Your task to perform on an android device: toggle airplane mode Image 0: 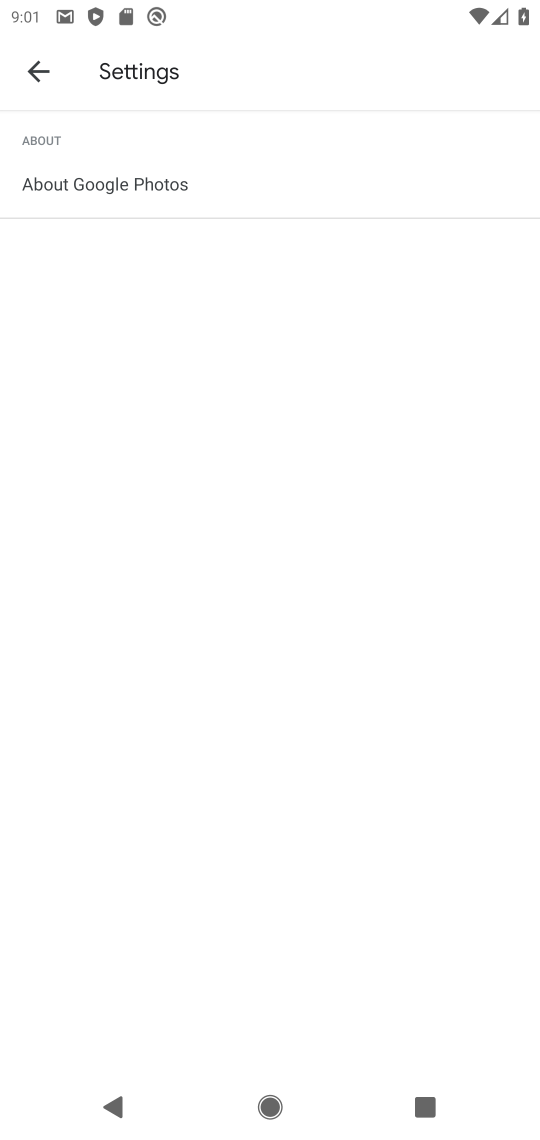
Step 0: press home button
Your task to perform on an android device: toggle airplane mode Image 1: 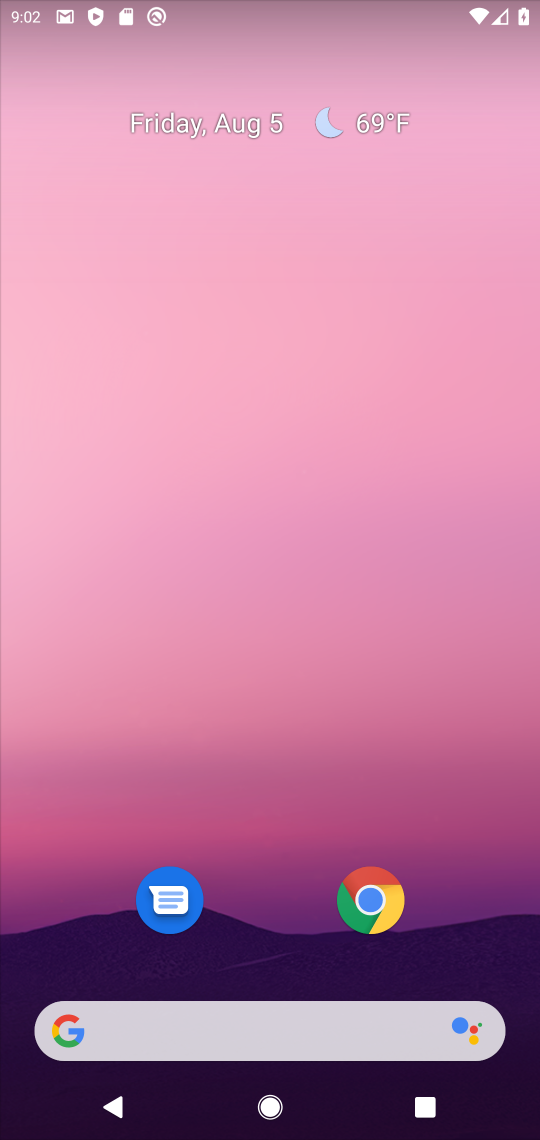
Step 1: drag from (360, 1027) to (423, 369)
Your task to perform on an android device: toggle airplane mode Image 2: 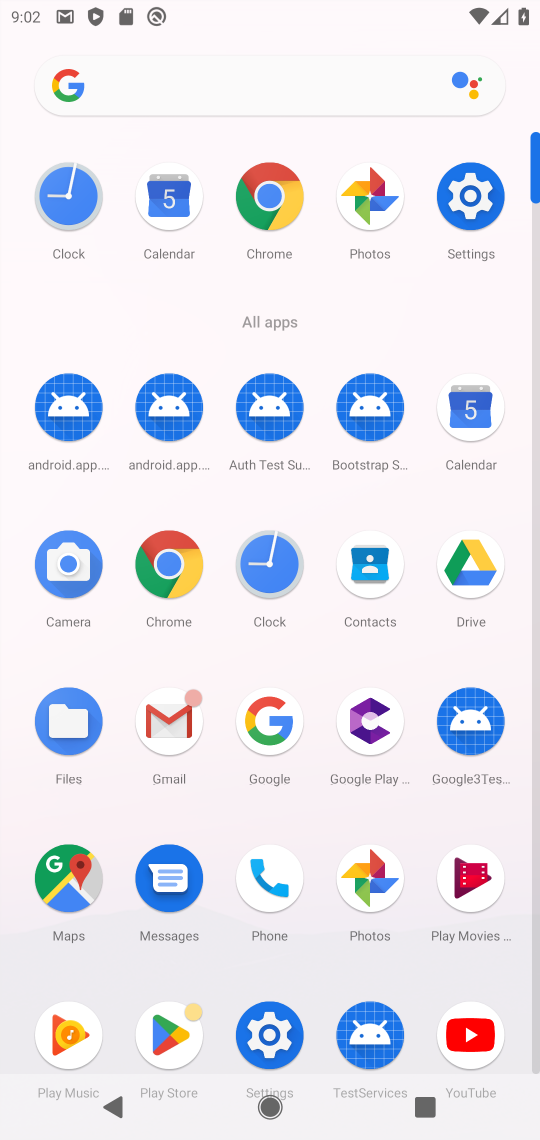
Step 2: click (484, 216)
Your task to perform on an android device: toggle airplane mode Image 3: 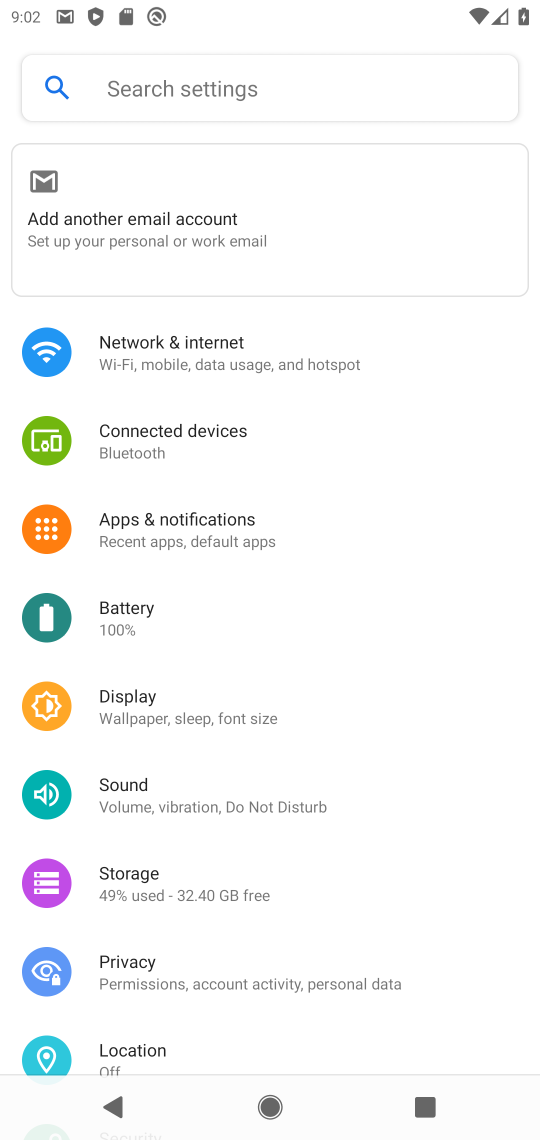
Step 3: click (196, 336)
Your task to perform on an android device: toggle airplane mode Image 4: 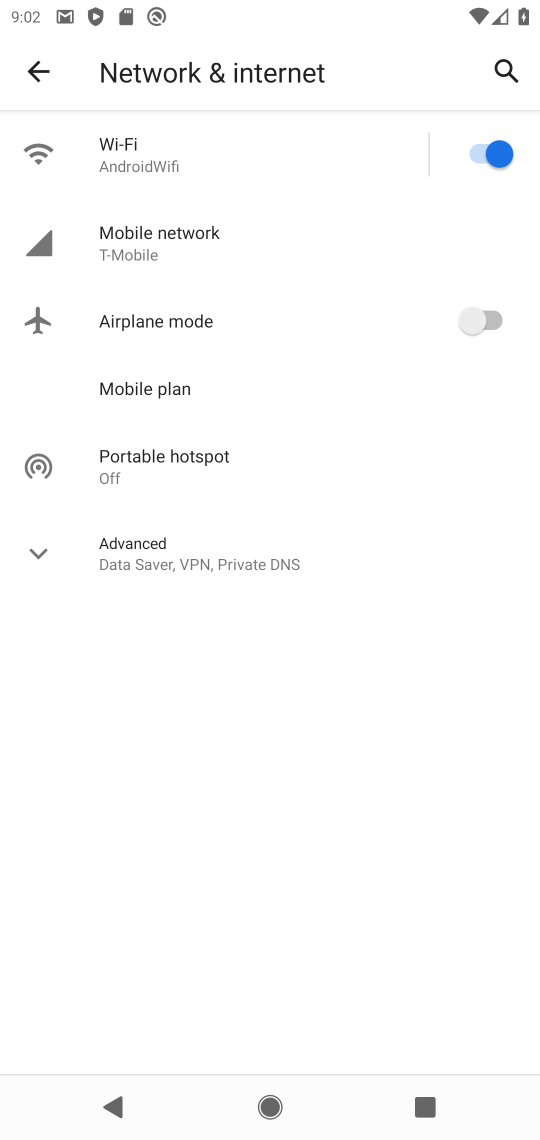
Step 4: click (506, 316)
Your task to perform on an android device: toggle airplane mode Image 5: 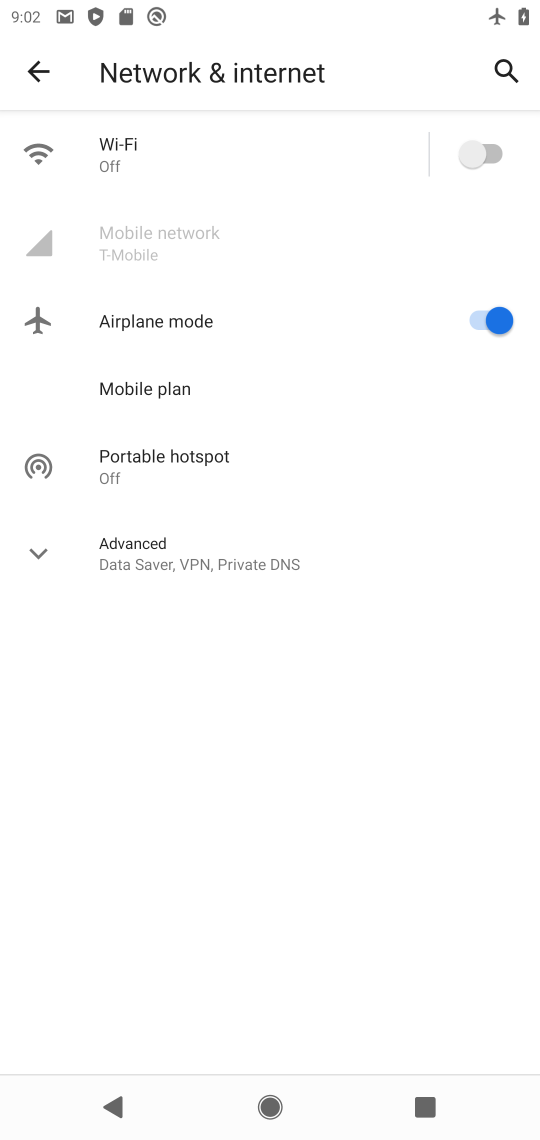
Step 5: task complete